Your task to perform on an android device: empty trash in the gmail app Image 0: 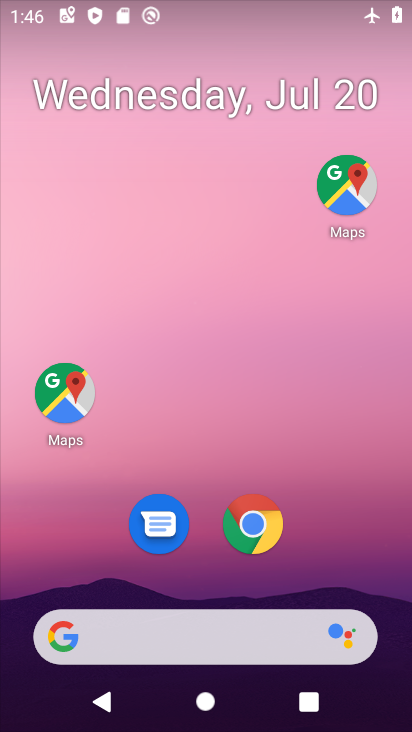
Step 0: drag from (334, 549) to (312, 6)
Your task to perform on an android device: empty trash in the gmail app Image 1: 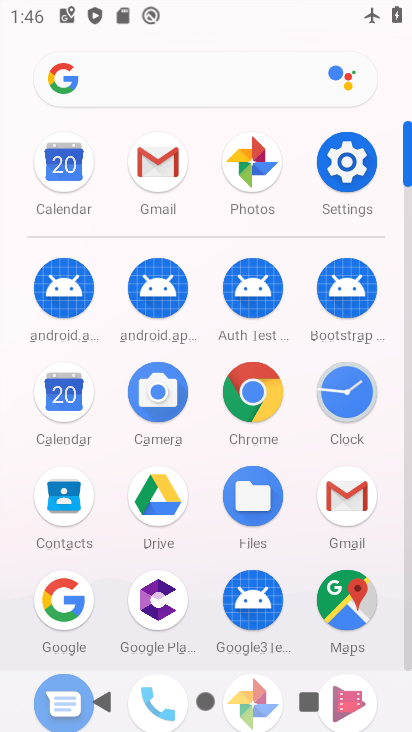
Step 1: click (173, 154)
Your task to perform on an android device: empty trash in the gmail app Image 2: 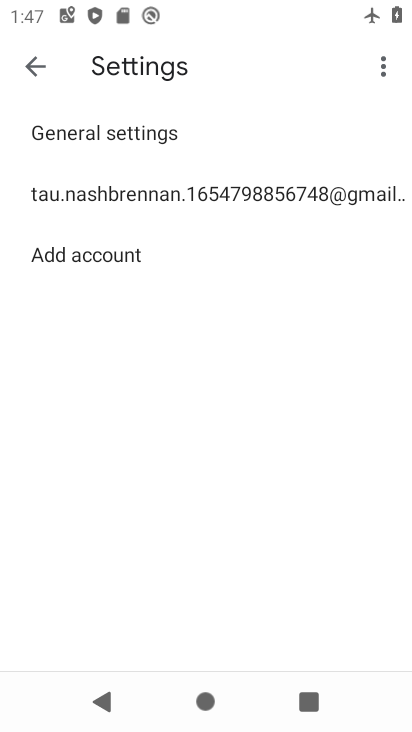
Step 2: click (38, 53)
Your task to perform on an android device: empty trash in the gmail app Image 3: 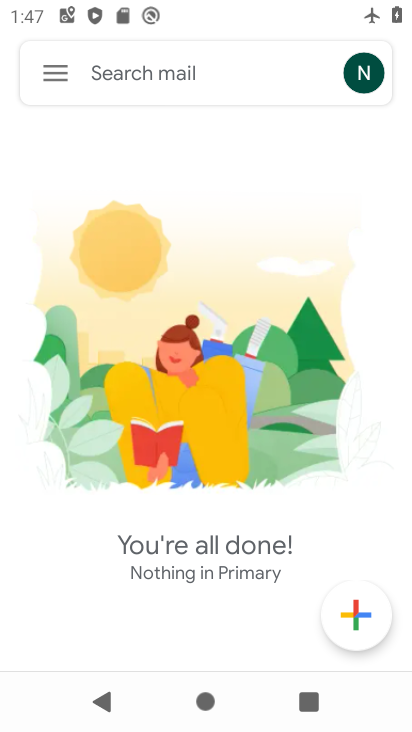
Step 3: click (52, 71)
Your task to perform on an android device: empty trash in the gmail app Image 4: 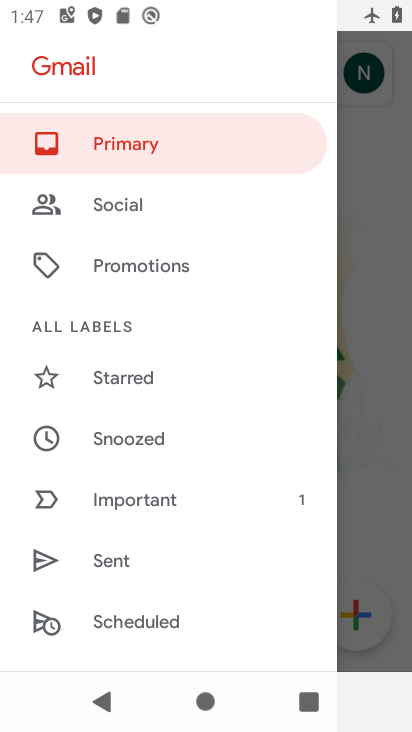
Step 4: drag from (190, 570) to (218, 78)
Your task to perform on an android device: empty trash in the gmail app Image 5: 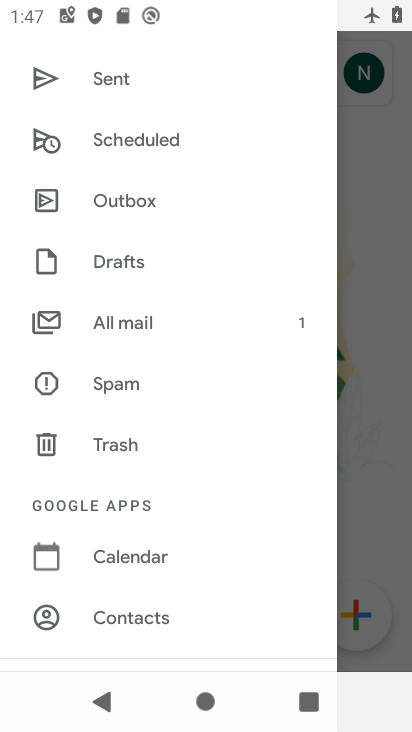
Step 5: click (139, 445)
Your task to perform on an android device: empty trash in the gmail app Image 6: 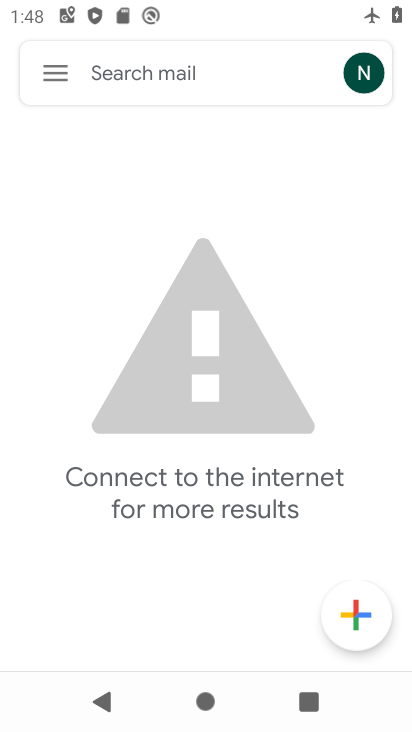
Step 6: task complete